Your task to perform on an android device: View the shopping cart on costco. Search for acer predator on costco, select the first entry, and add it to the cart. Image 0: 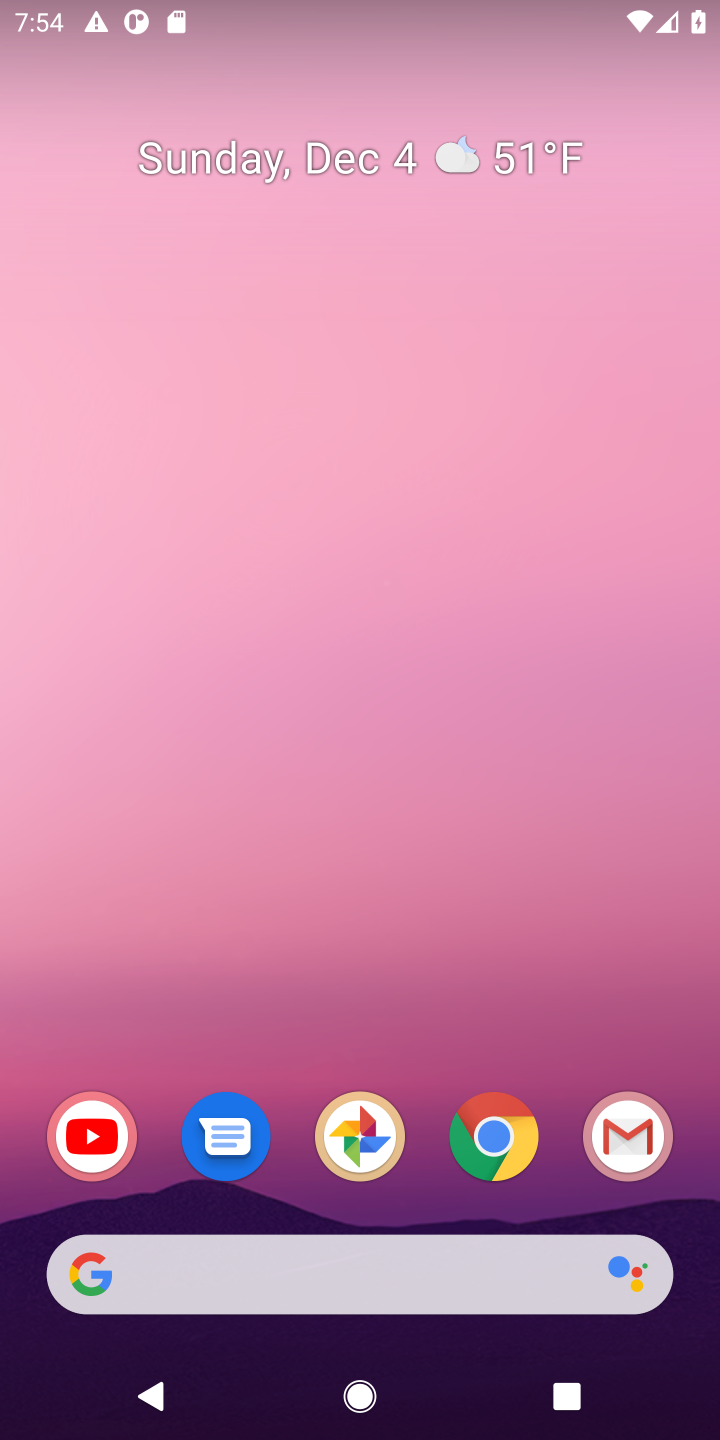
Step 0: click (507, 1152)
Your task to perform on an android device: View the shopping cart on costco. Search for acer predator on costco, select the first entry, and add it to the cart. Image 1: 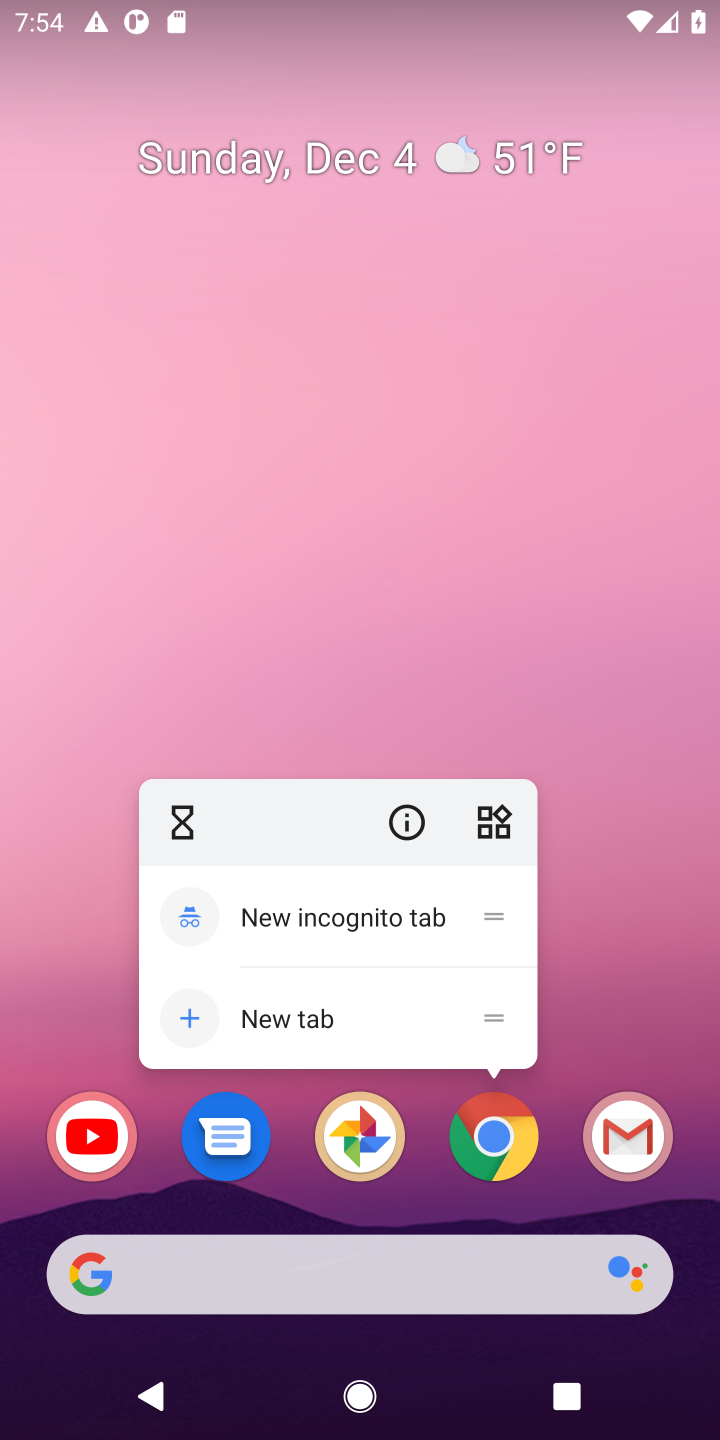
Step 1: click (507, 1152)
Your task to perform on an android device: View the shopping cart on costco. Search for acer predator on costco, select the first entry, and add it to the cart. Image 2: 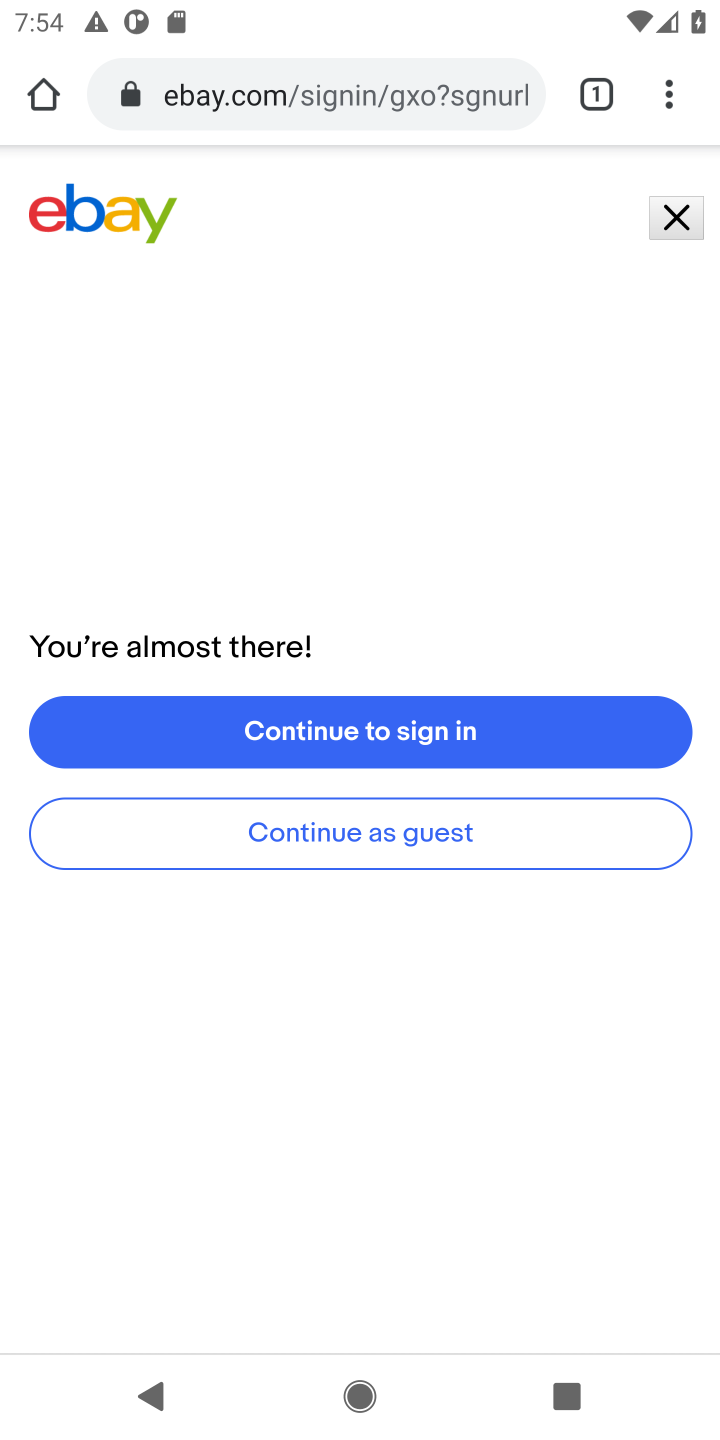
Step 2: click (340, 112)
Your task to perform on an android device: View the shopping cart on costco. Search for acer predator on costco, select the first entry, and add it to the cart. Image 3: 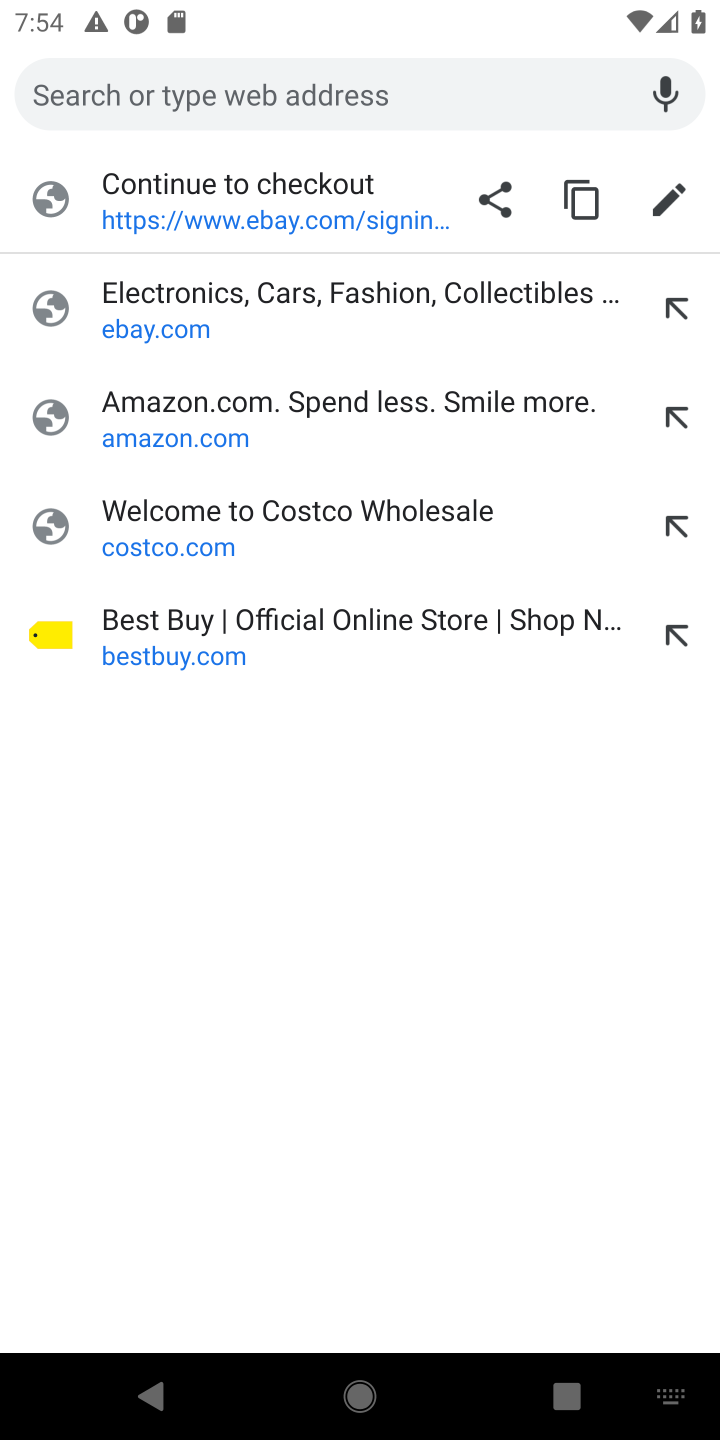
Step 3: click (126, 534)
Your task to perform on an android device: View the shopping cart on costco. Search for acer predator on costco, select the first entry, and add it to the cart. Image 4: 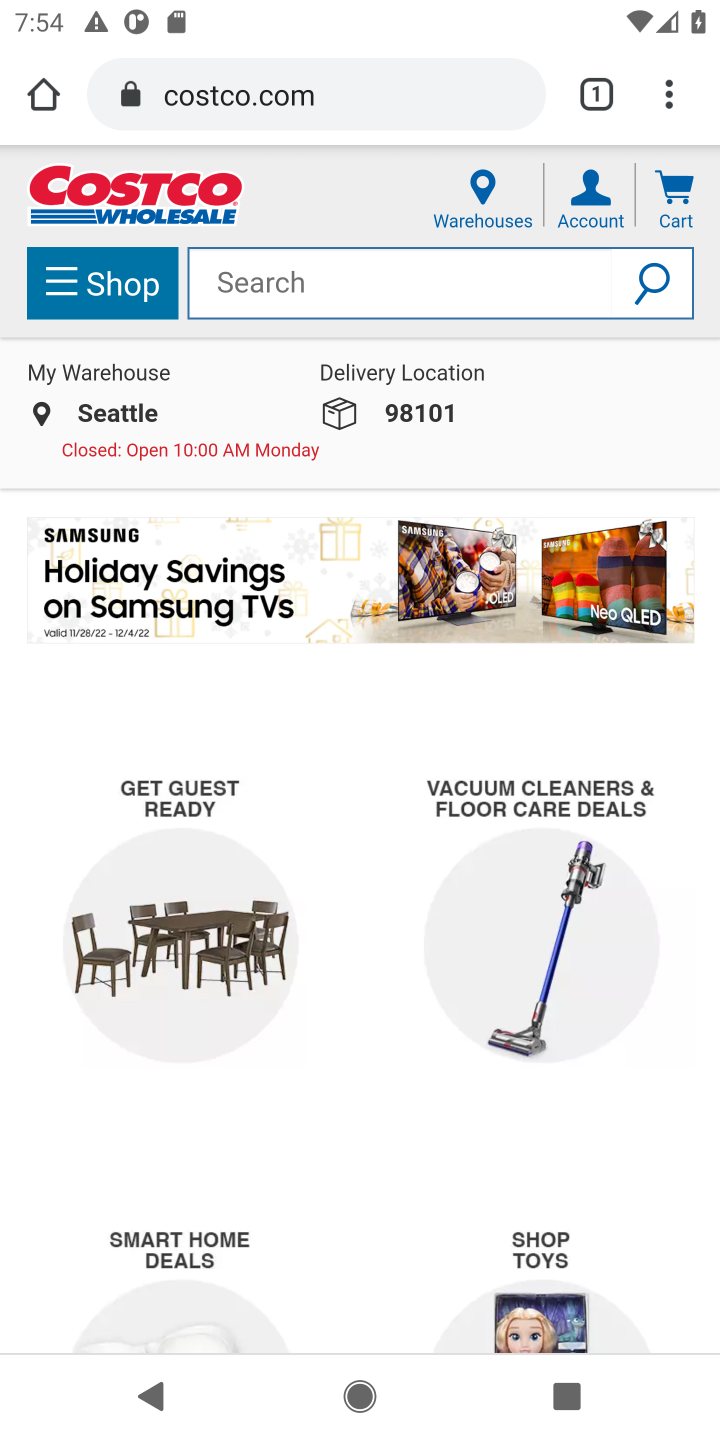
Step 4: click (674, 208)
Your task to perform on an android device: View the shopping cart on costco. Search for acer predator on costco, select the first entry, and add it to the cart. Image 5: 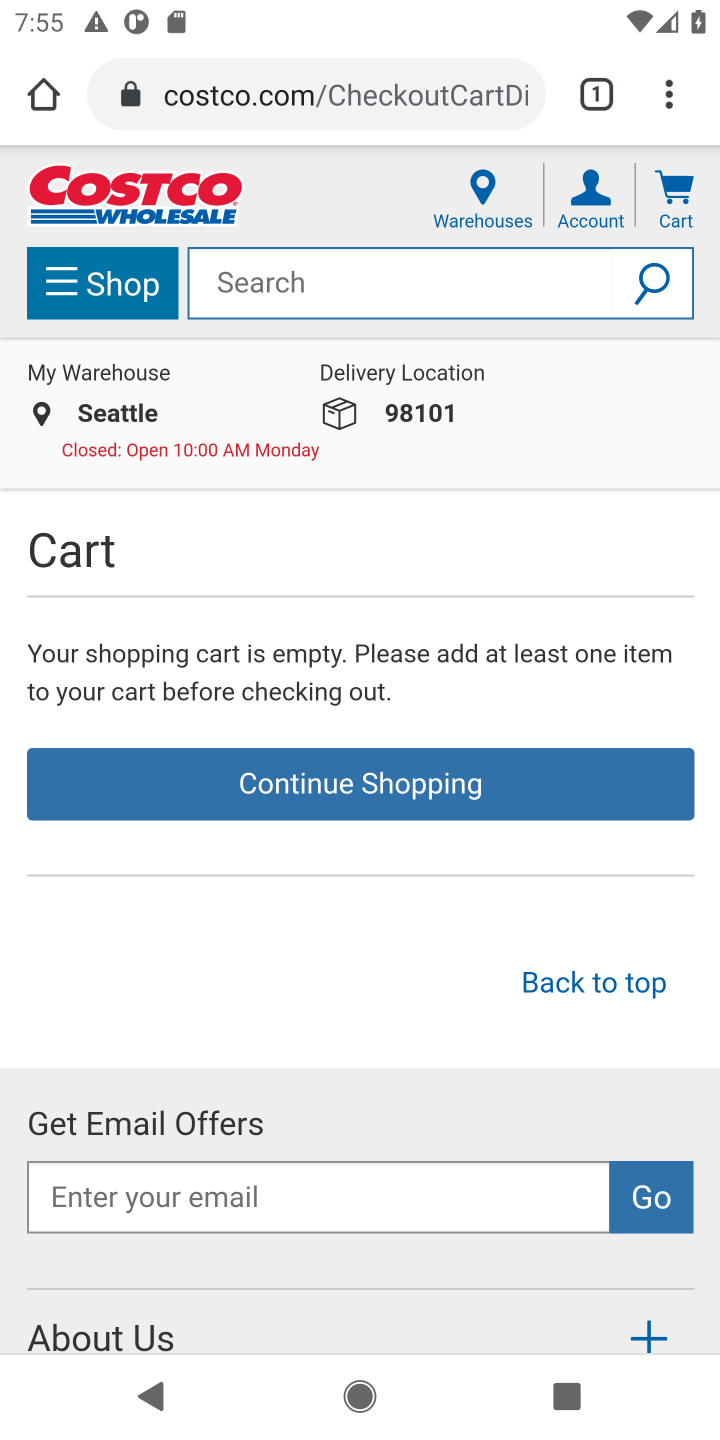
Step 5: click (333, 278)
Your task to perform on an android device: View the shopping cart on costco. Search for acer predator on costco, select the first entry, and add it to the cart. Image 6: 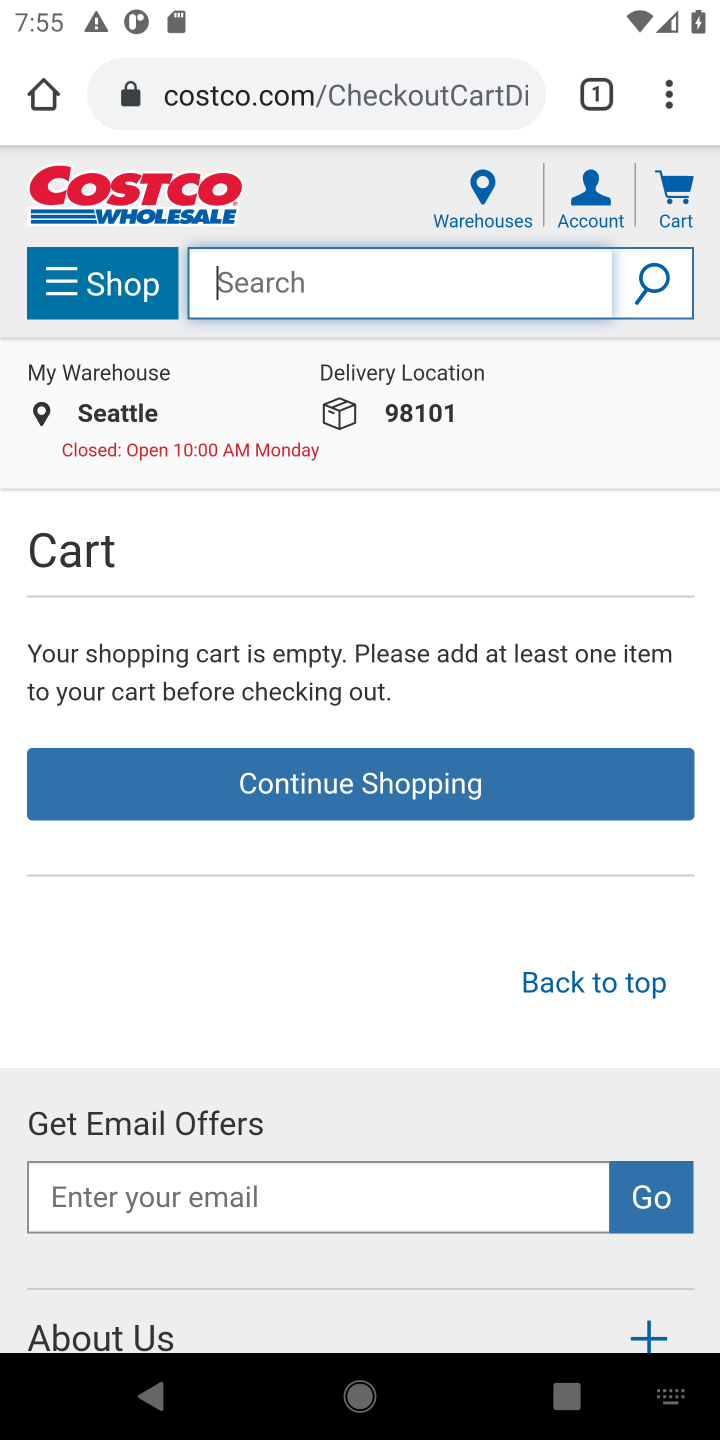
Step 6: type " acer predator"
Your task to perform on an android device: View the shopping cart on costco. Search for acer predator on costco, select the first entry, and add it to the cart. Image 7: 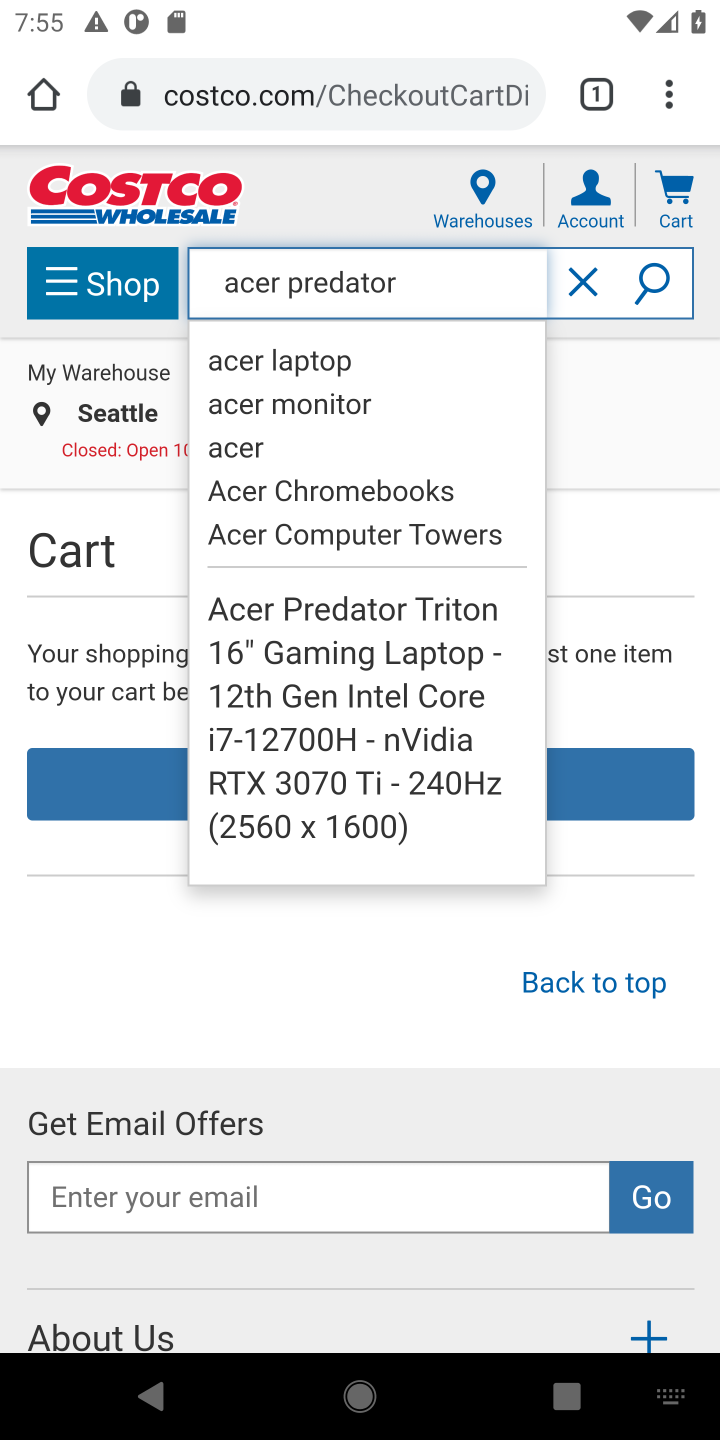
Step 7: click (653, 302)
Your task to perform on an android device: View the shopping cart on costco. Search for acer predator on costco, select the first entry, and add it to the cart. Image 8: 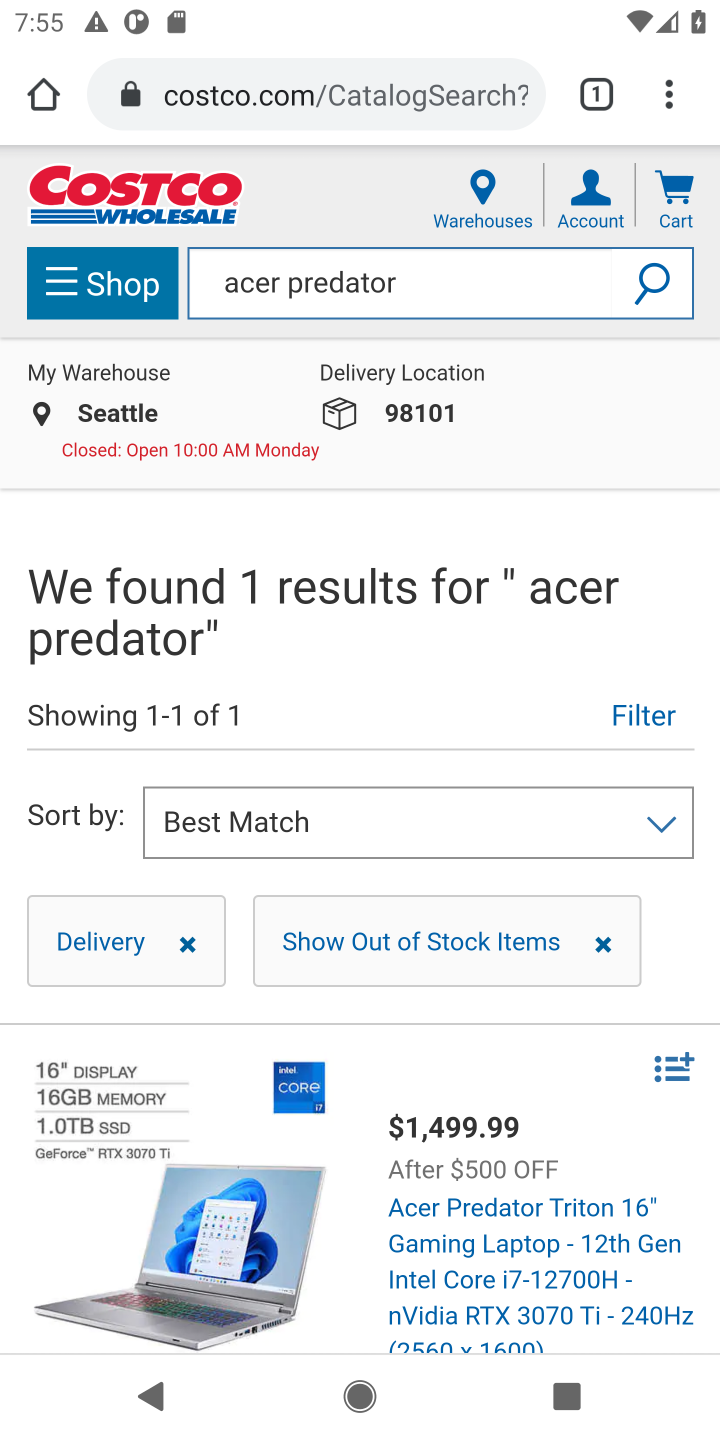
Step 8: click (510, 1241)
Your task to perform on an android device: View the shopping cart on costco. Search for acer predator on costco, select the first entry, and add it to the cart. Image 9: 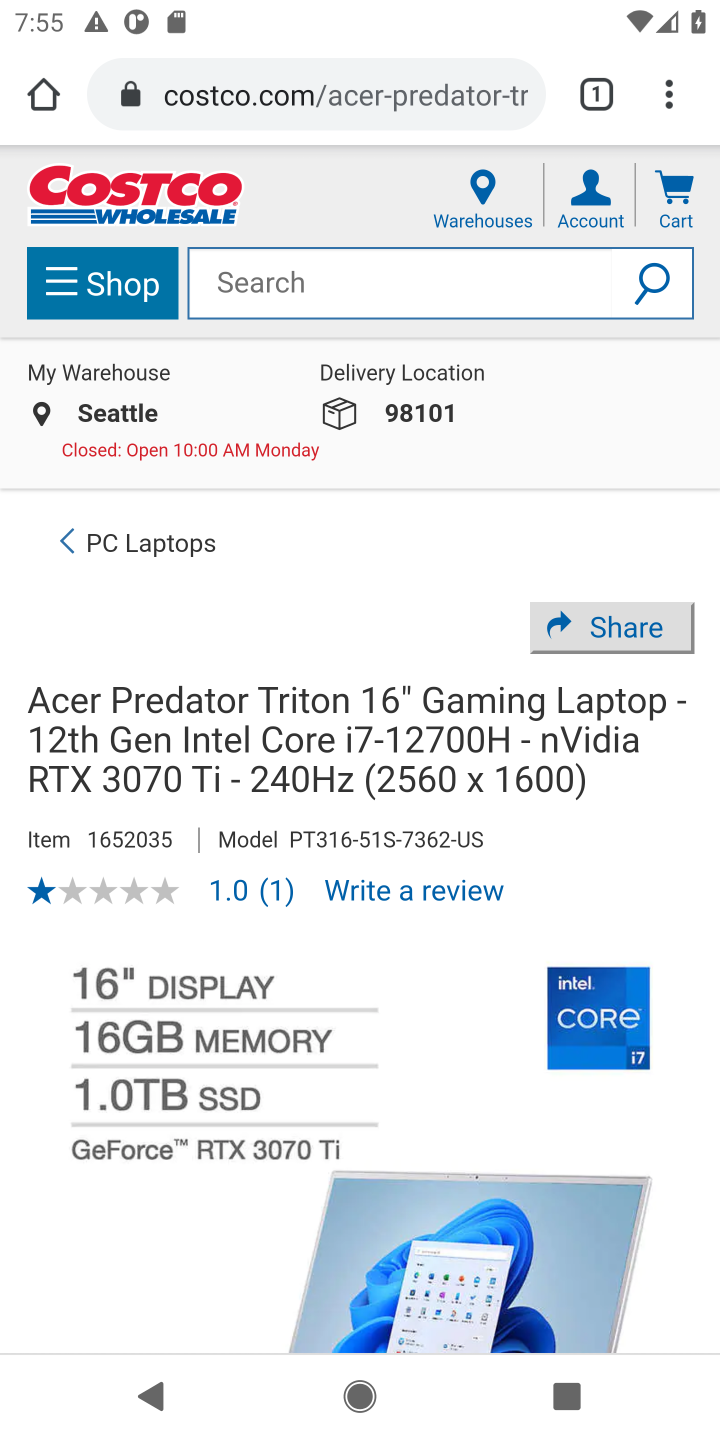
Step 9: drag from (272, 1220) to (314, 510)
Your task to perform on an android device: View the shopping cart on costco. Search for acer predator on costco, select the first entry, and add it to the cart. Image 10: 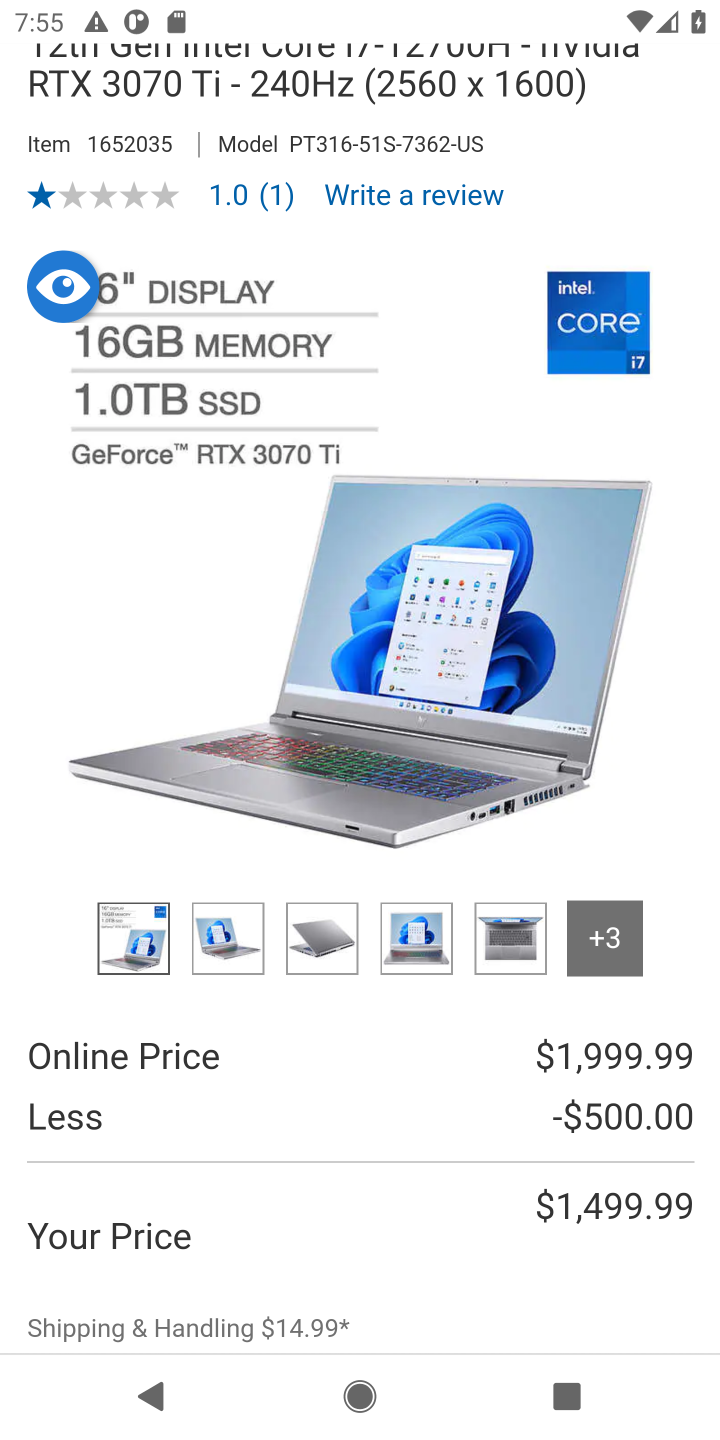
Step 10: drag from (335, 856) to (290, 321)
Your task to perform on an android device: View the shopping cart on costco. Search for acer predator on costco, select the first entry, and add it to the cart. Image 11: 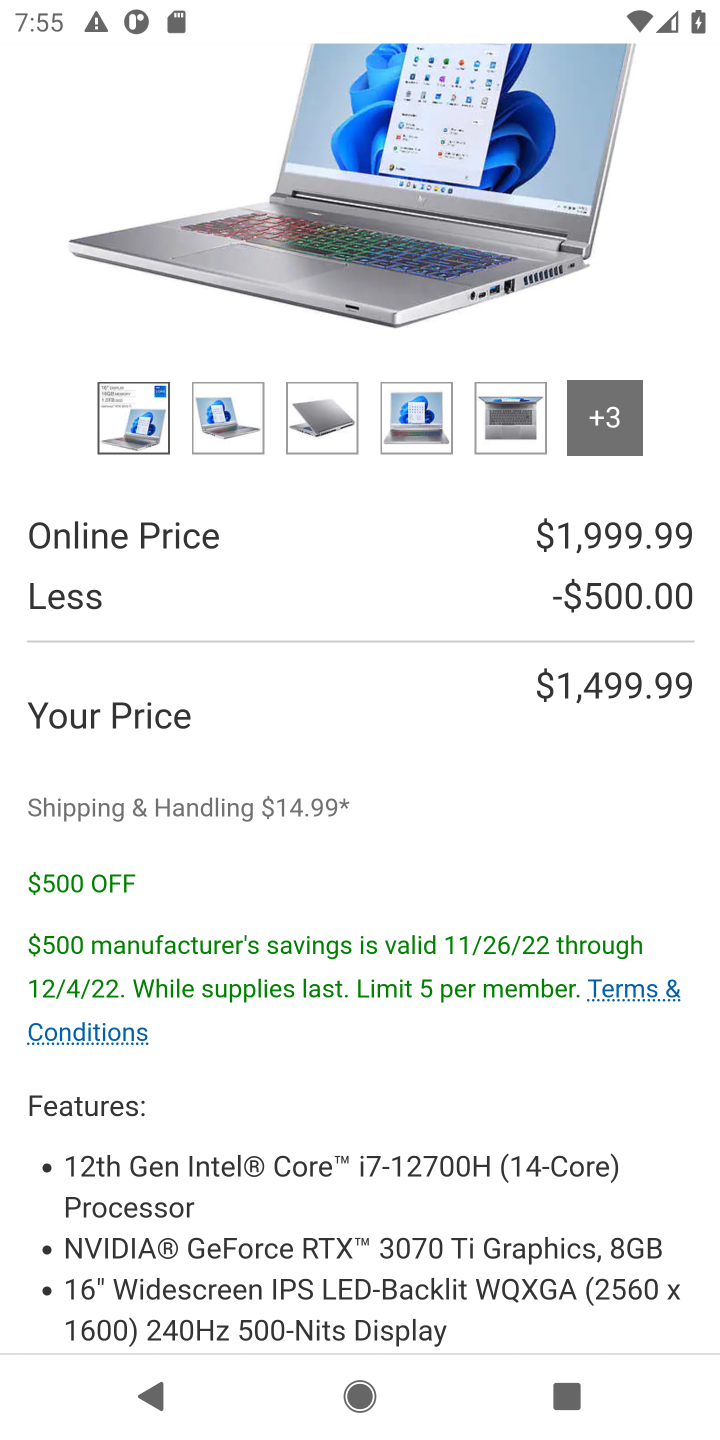
Step 11: drag from (362, 780) to (299, 301)
Your task to perform on an android device: View the shopping cart on costco. Search for acer predator on costco, select the first entry, and add it to the cart. Image 12: 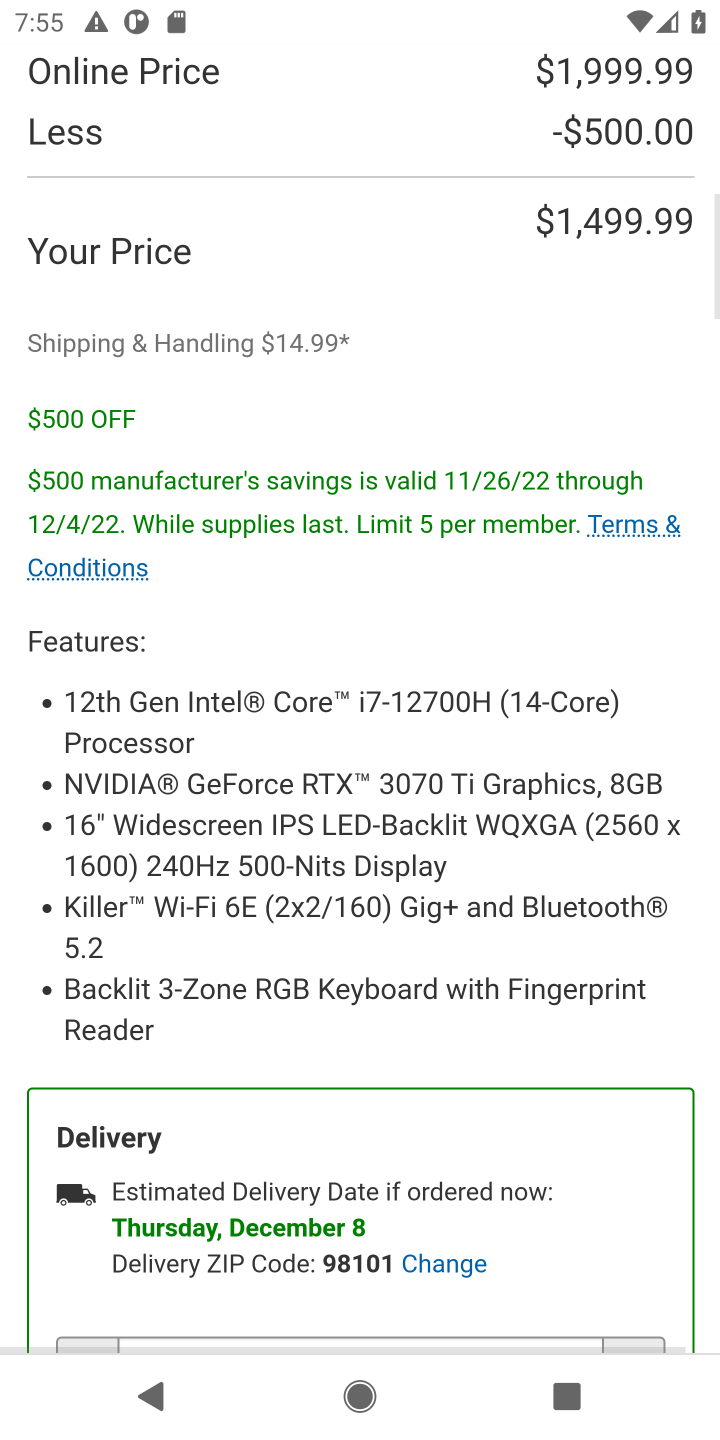
Step 12: drag from (396, 949) to (346, 334)
Your task to perform on an android device: View the shopping cart on costco. Search for acer predator on costco, select the first entry, and add it to the cart. Image 13: 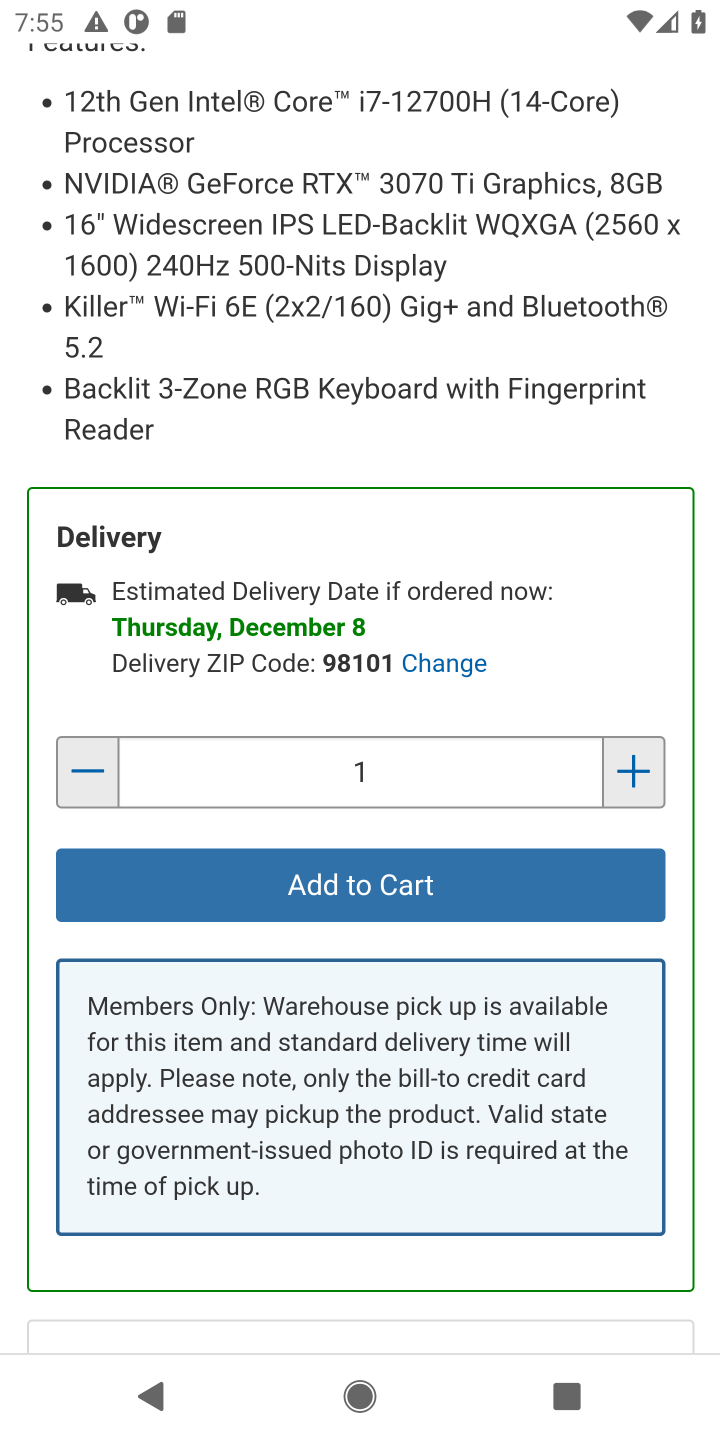
Step 13: click (327, 890)
Your task to perform on an android device: View the shopping cart on costco. Search for acer predator on costco, select the first entry, and add it to the cart. Image 14: 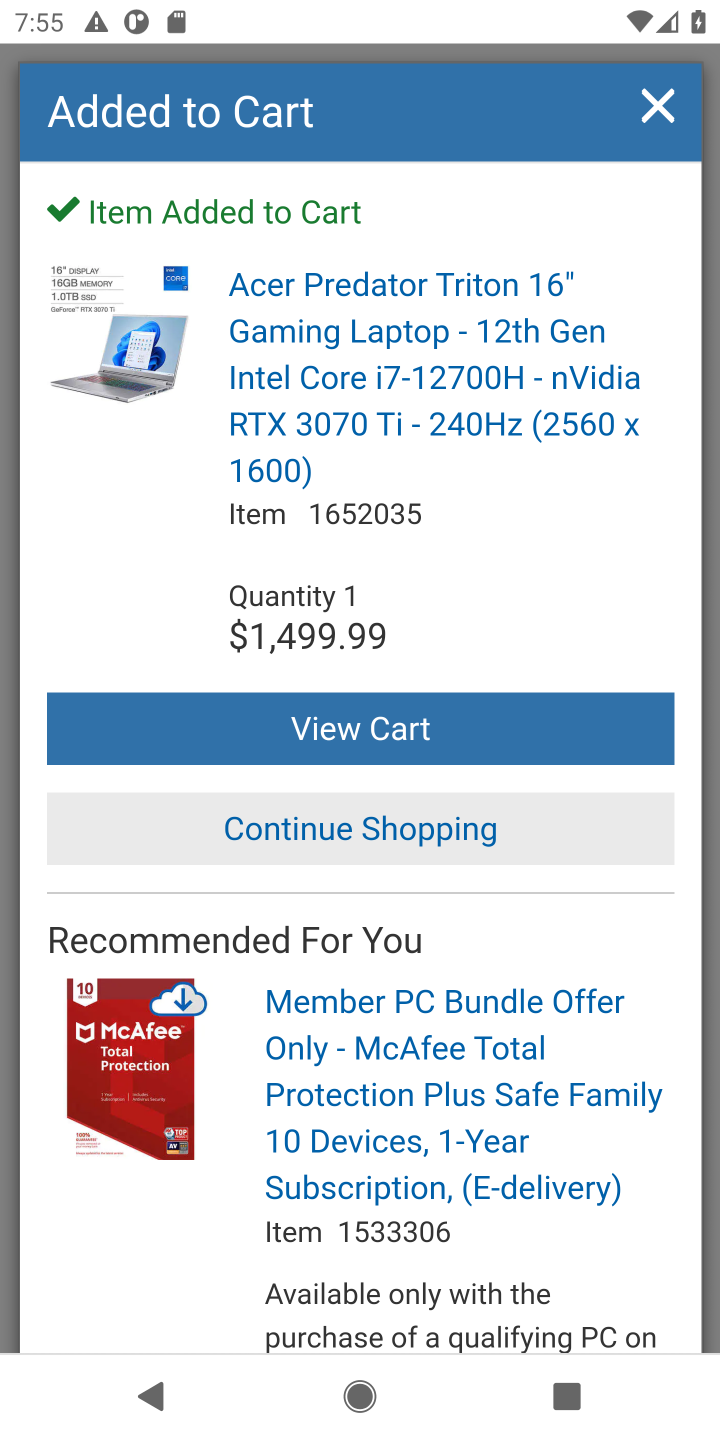
Step 14: task complete